Your task to perform on an android device: Open display settings Image 0: 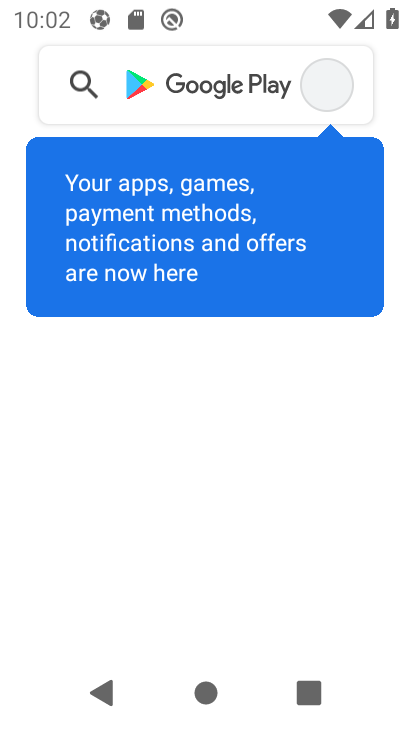
Step 0: press home button
Your task to perform on an android device: Open display settings Image 1: 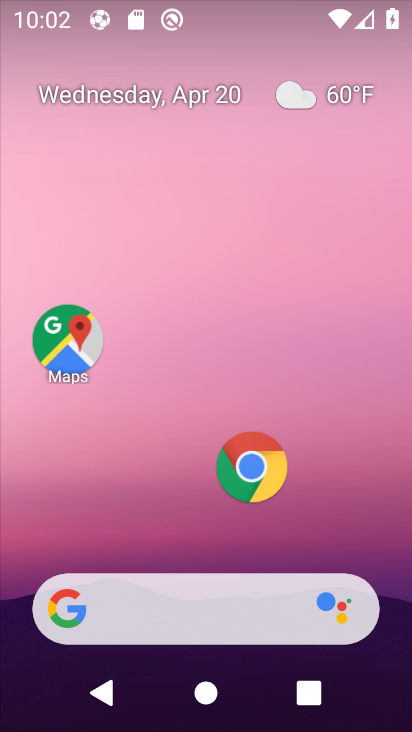
Step 1: drag from (333, 514) to (321, 173)
Your task to perform on an android device: Open display settings Image 2: 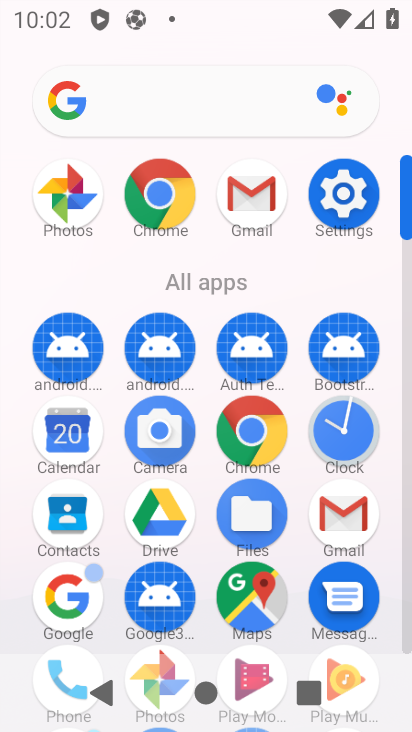
Step 2: click (350, 188)
Your task to perform on an android device: Open display settings Image 3: 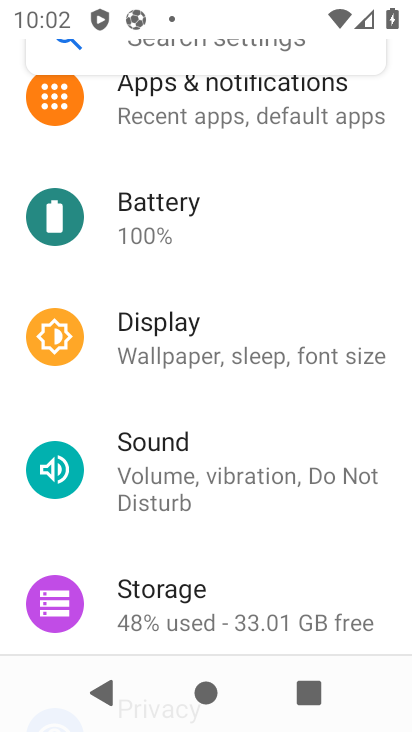
Step 3: click (241, 324)
Your task to perform on an android device: Open display settings Image 4: 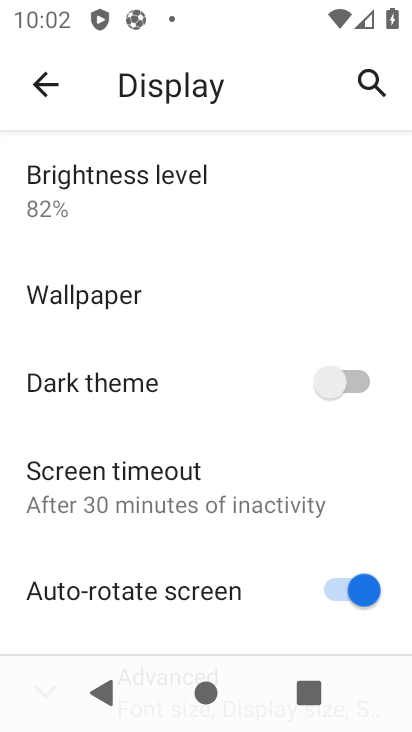
Step 4: task complete